Your task to perform on an android device: What's on my calendar today? Image 0: 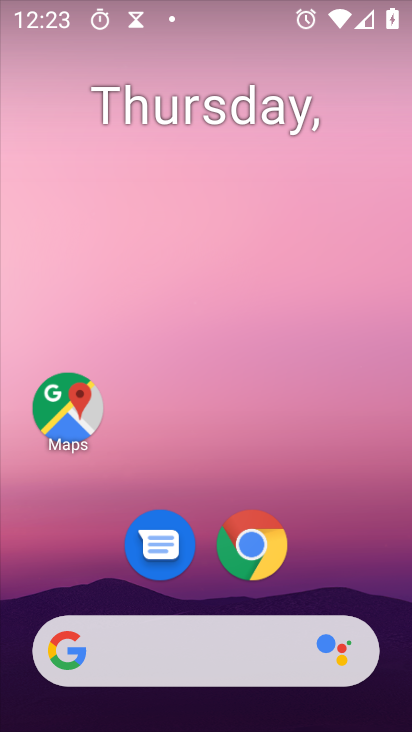
Step 0: press home button
Your task to perform on an android device: What's on my calendar today? Image 1: 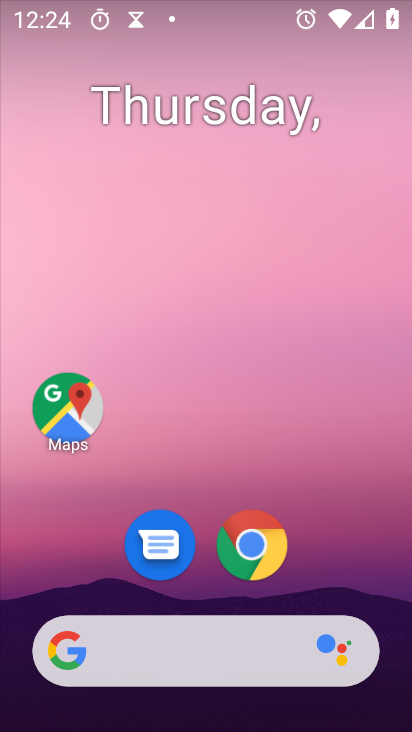
Step 1: drag from (176, 644) to (293, 192)
Your task to perform on an android device: What's on my calendar today? Image 2: 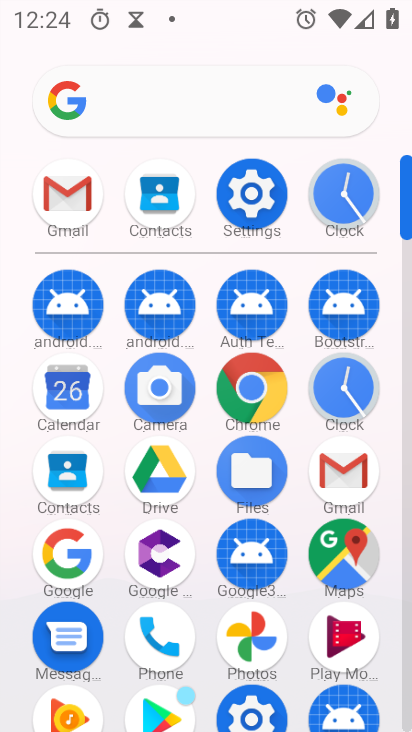
Step 2: click (75, 398)
Your task to perform on an android device: What's on my calendar today? Image 3: 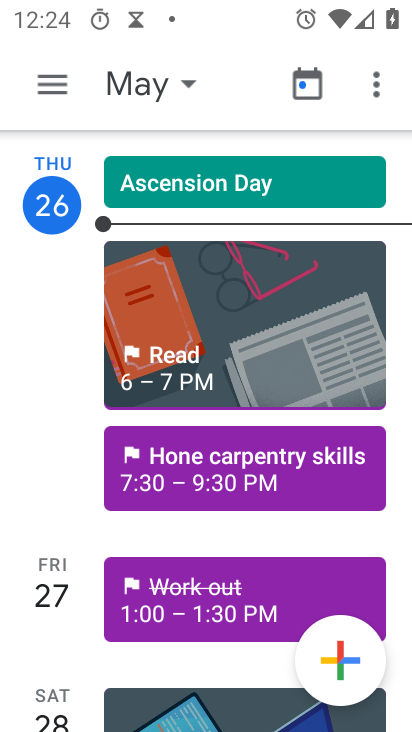
Step 3: click (130, 90)
Your task to perform on an android device: What's on my calendar today? Image 4: 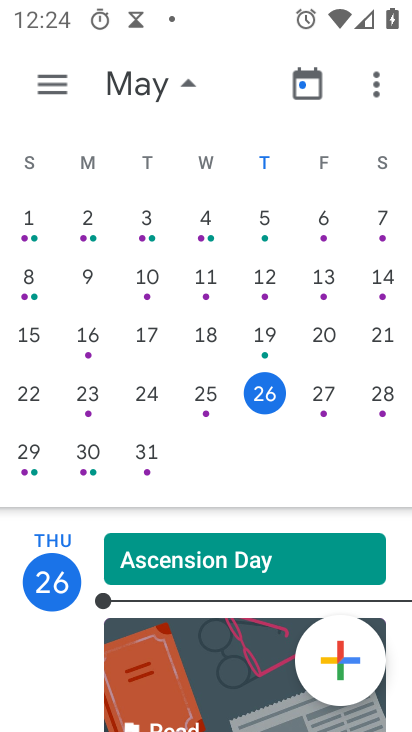
Step 4: click (269, 399)
Your task to perform on an android device: What's on my calendar today? Image 5: 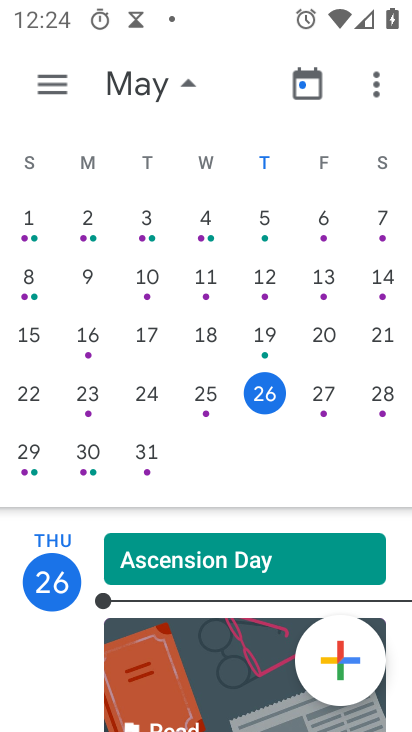
Step 5: click (65, 86)
Your task to perform on an android device: What's on my calendar today? Image 6: 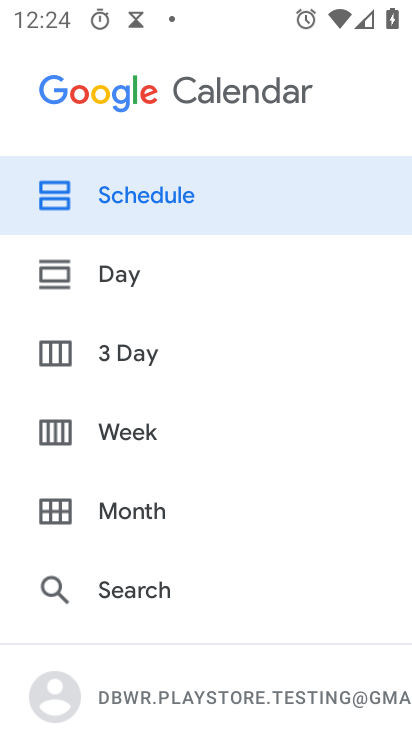
Step 6: click (109, 273)
Your task to perform on an android device: What's on my calendar today? Image 7: 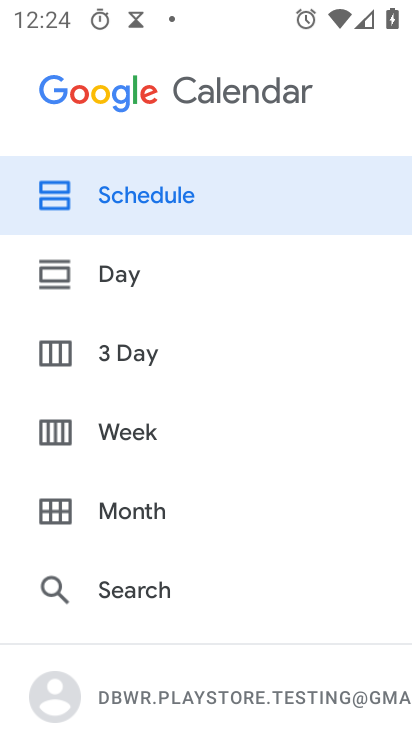
Step 7: click (105, 277)
Your task to perform on an android device: What's on my calendar today? Image 8: 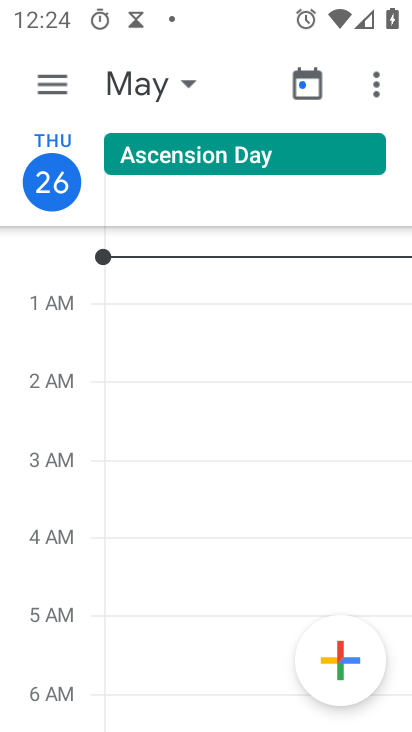
Step 8: click (53, 85)
Your task to perform on an android device: What's on my calendar today? Image 9: 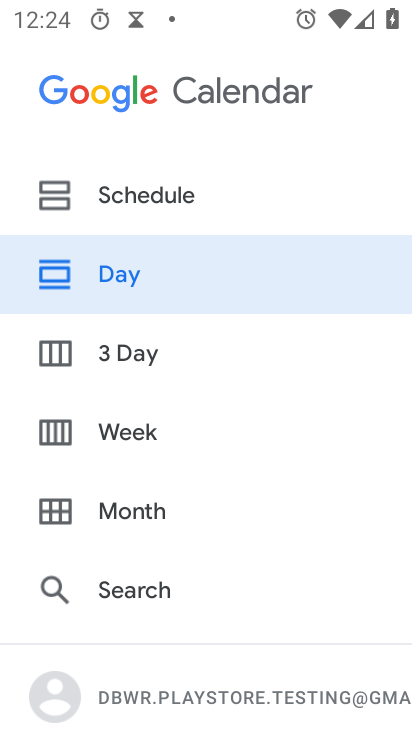
Step 9: click (166, 190)
Your task to perform on an android device: What's on my calendar today? Image 10: 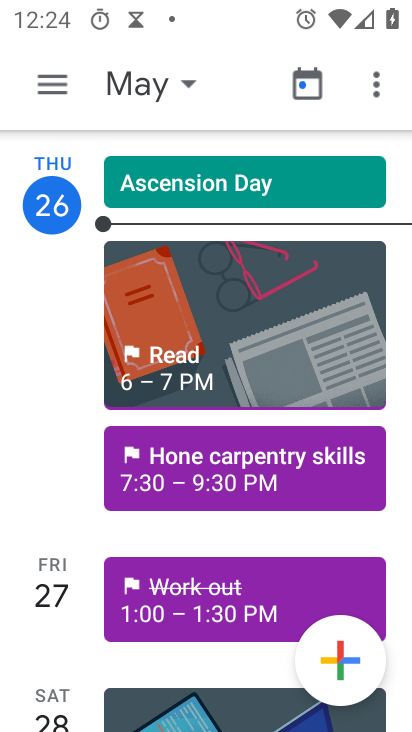
Step 10: drag from (214, 387) to (282, 285)
Your task to perform on an android device: What's on my calendar today? Image 11: 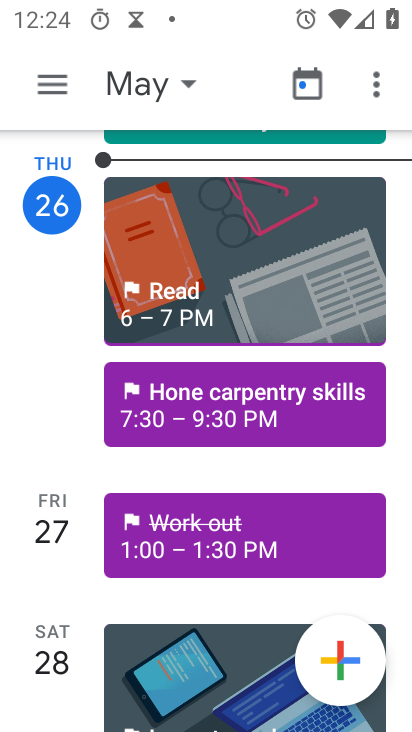
Step 11: click (237, 409)
Your task to perform on an android device: What's on my calendar today? Image 12: 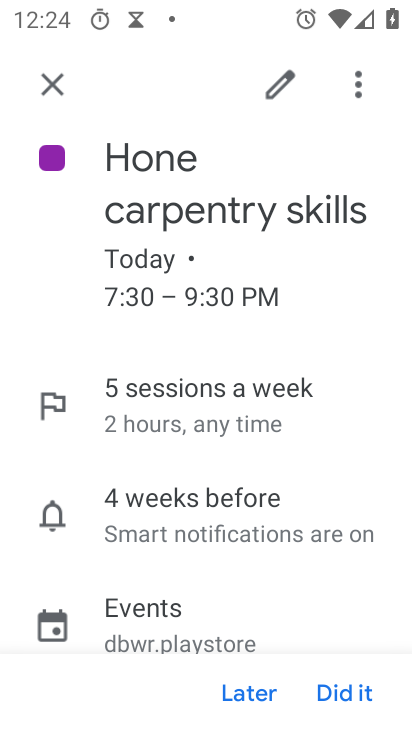
Step 12: task complete